Your task to perform on an android device: show emergency info Image 0: 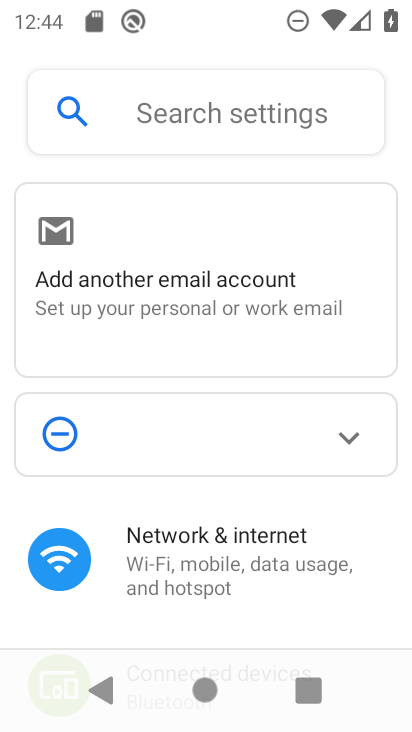
Step 0: drag from (375, 600) to (304, 94)
Your task to perform on an android device: show emergency info Image 1: 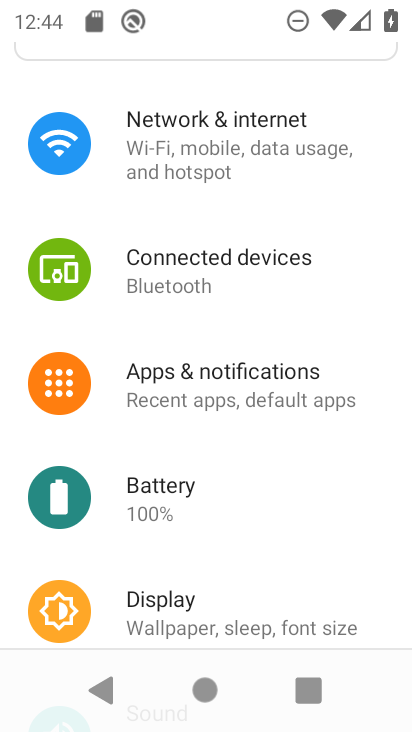
Step 1: drag from (335, 566) to (310, 219)
Your task to perform on an android device: show emergency info Image 2: 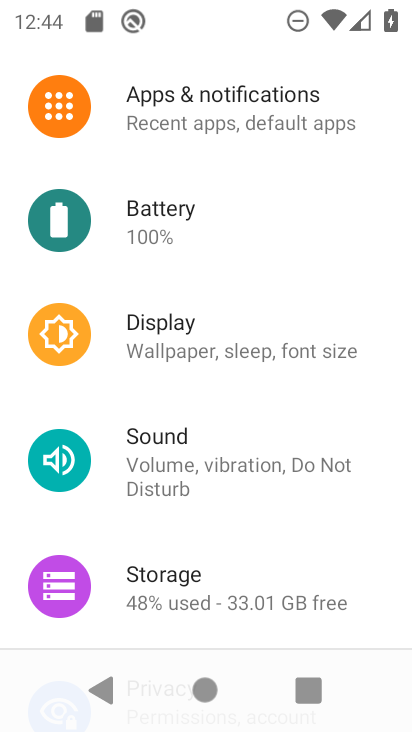
Step 2: drag from (315, 573) to (293, 184)
Your task to perform on an android device: show emergency info Image 3: 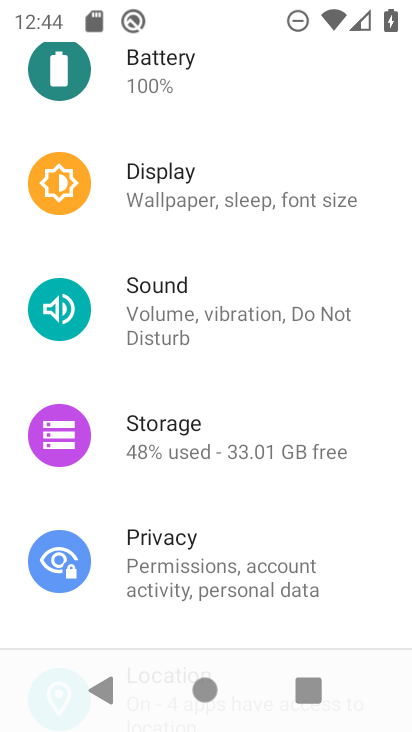
Step 3: drag from (284, 528) to (270, 182)
Your task to perform on an android device: show emergency info Image 4: 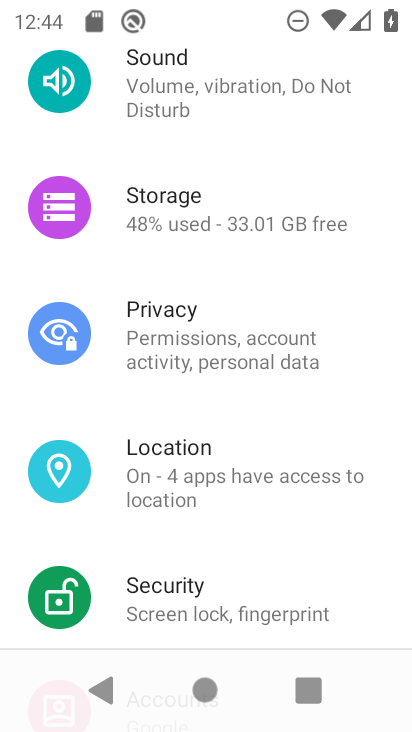
Step 4: drag from (310, 546) to (257, 295)
Your task to perform on an android device: show emergency info Image 5: 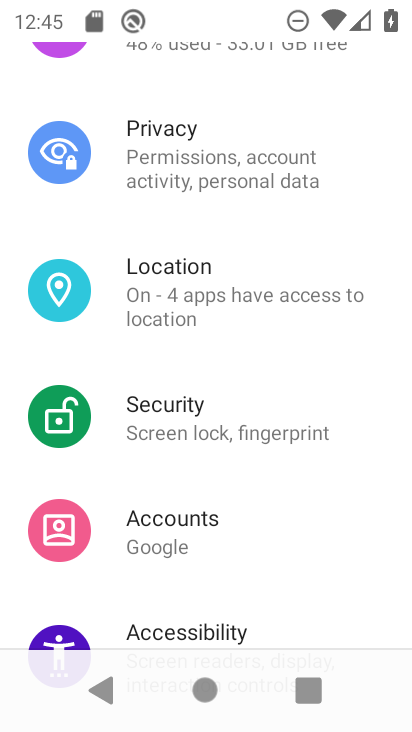
Step 5: drag from (290, 605) to (238, 322)
Your task to perform on an android device: show emergency info Image 6: 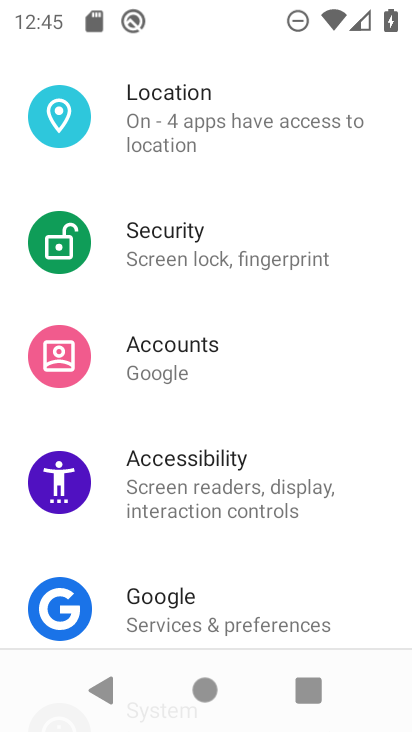
Step 6: drag from (269, 534) to (261, 233)
Your task to perform on an android device: show emergency info Image 7: 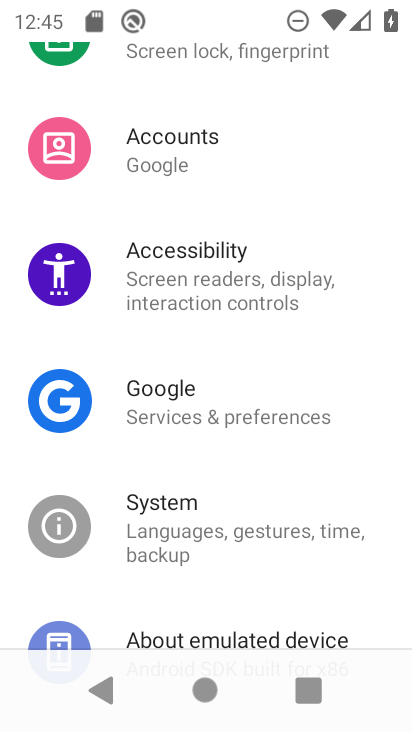
Step 7: drag from (304, 610) to (262, 418)
Your task to perform on an android device: show emergency info Image 8: 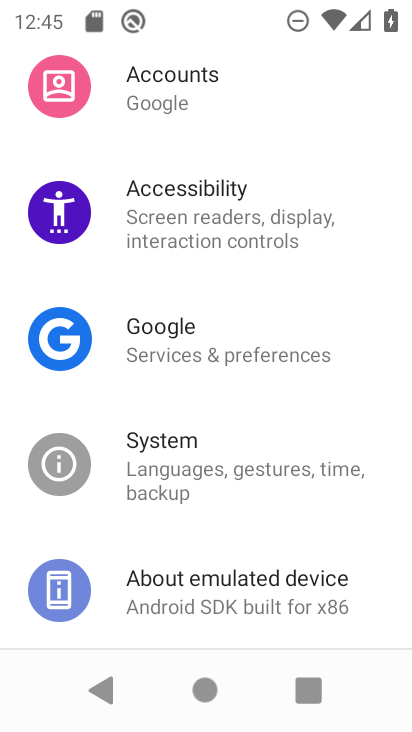
Step 8: click (279, 586)
Your task to perform on an android device: show emergency info Image 9: 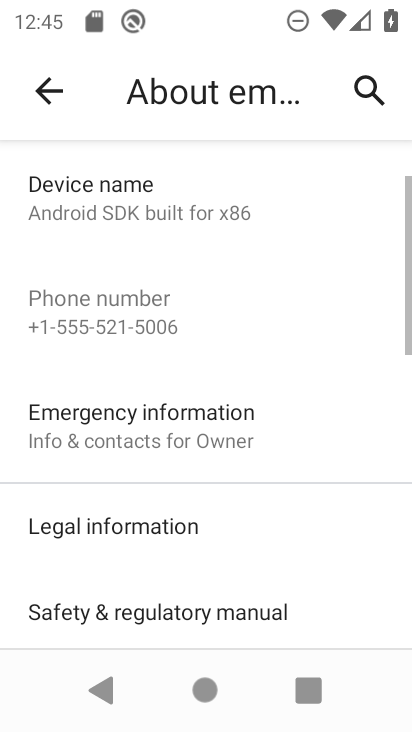
Step 9: drag from (279, 586) to (272, 486)
Your task to perform on an android device: show emergency info Image 10: 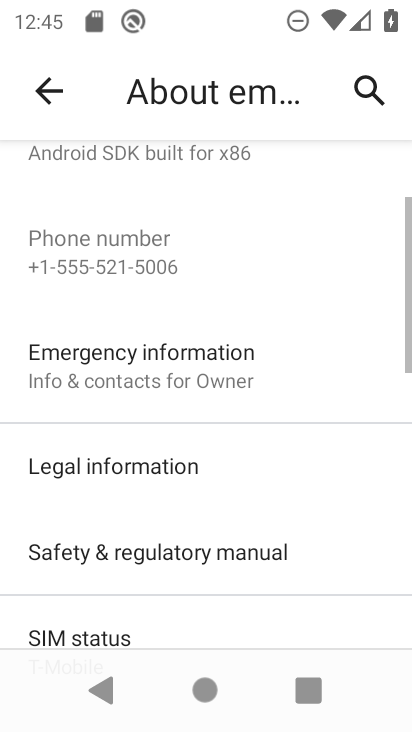
Step 10: click (261, 356)
Your task to perform on an android device: show emergency info Image 11: 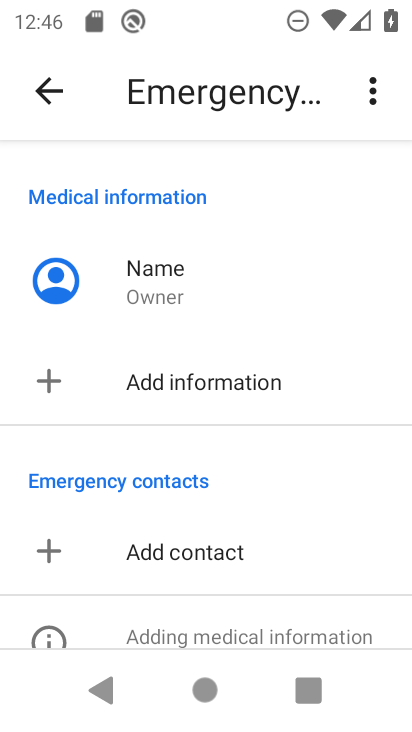
Step 11: task complete